Your task to perform on an android device: What is the news today? Image 0: 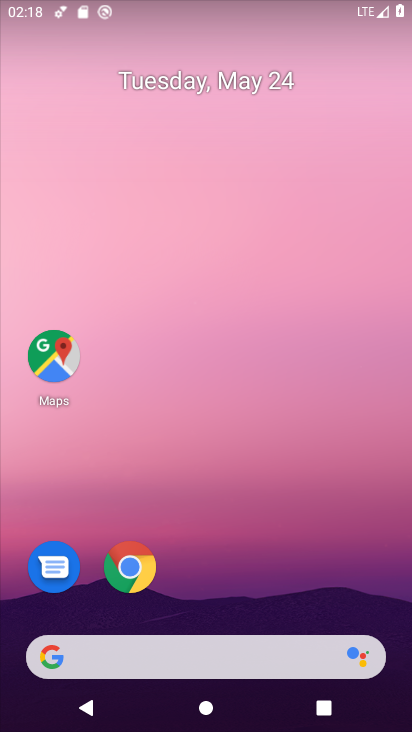
Step 0: drag from (223, 441) to (210, 0)
Your task to perform on an android device: What is the news today? Image 1: 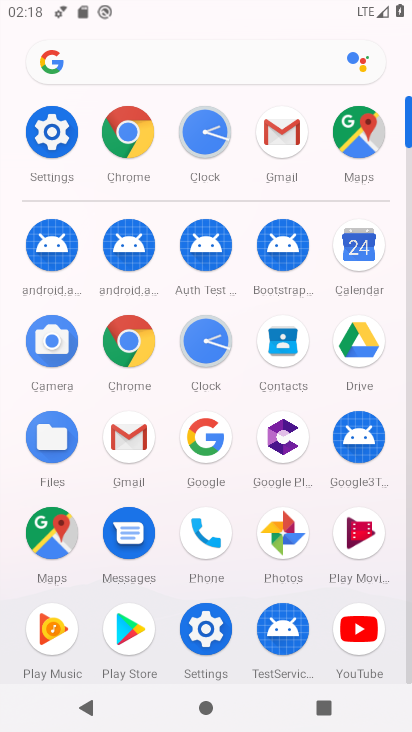
Step 1: click (199, 72)
Your task to perform on an android device: What is the news today? Image 2: 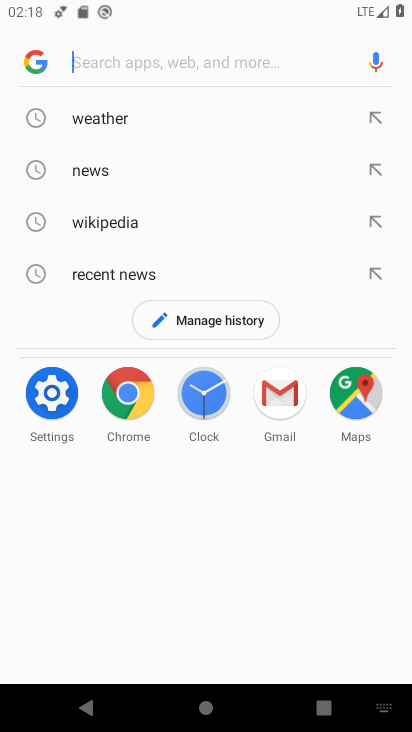
Step 2: type "news today"
Your task to perform on an android device: What is the news today? Image 3: 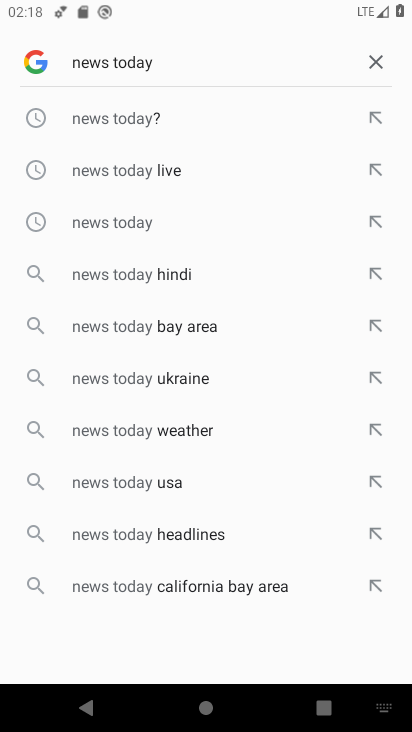
Step 3: click (123, 126)
Your task to perform on an android device: What is the news today? Image 4: 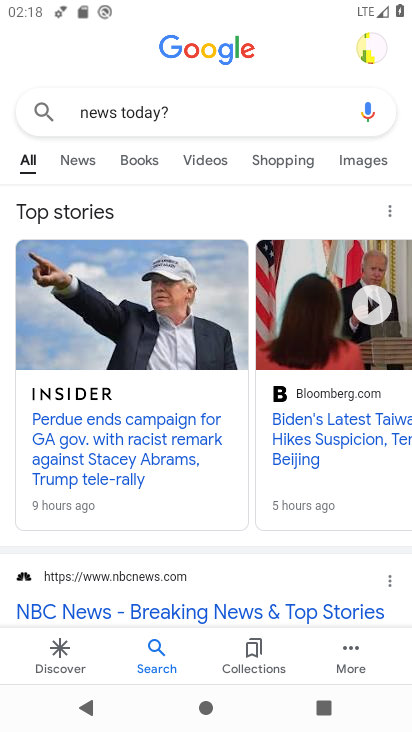
Step 4: task complete